Your task to perform on an android device: change timer sound Image 0: 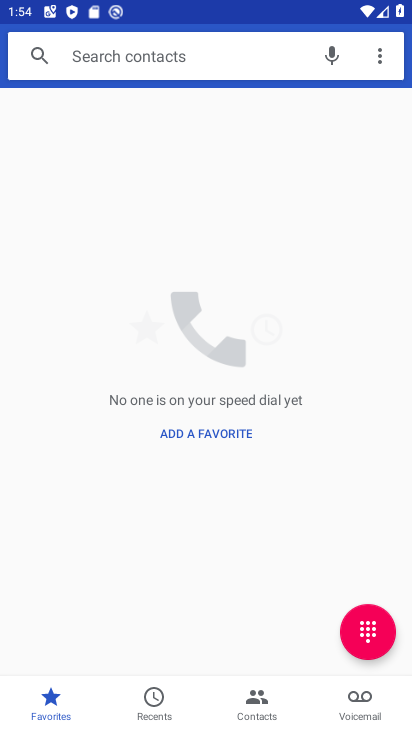
Step 0: press home button
Your task to perform on an android device: change timer sound Image 1: 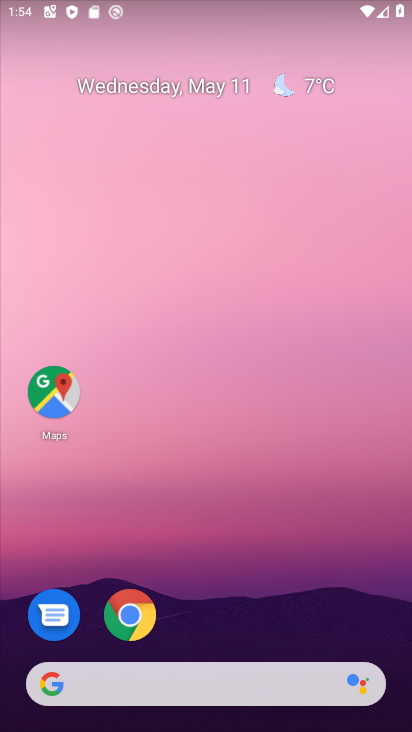
Step 1: drag from (331, 592) to (282, 119)
Your task to perform on an android device: change timer sound Image 2: 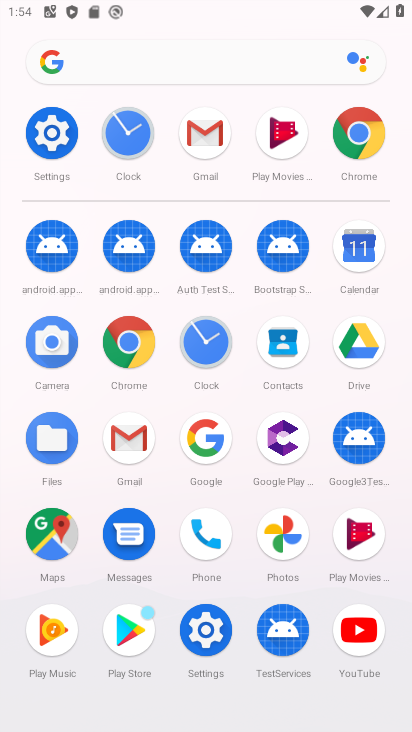
Step 2: click (213, 335)
Your task to perform on an android device: change timer sound Image 3: 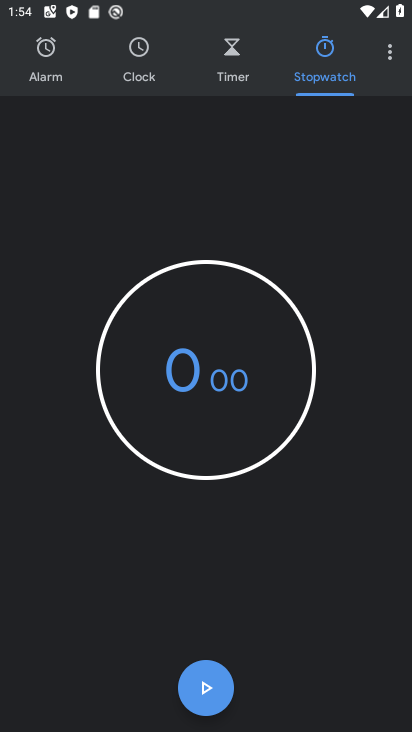
Step 3: drag from (390, 60) to (272, 101)
Your task to perform on an android device: change timer sound Image 4: 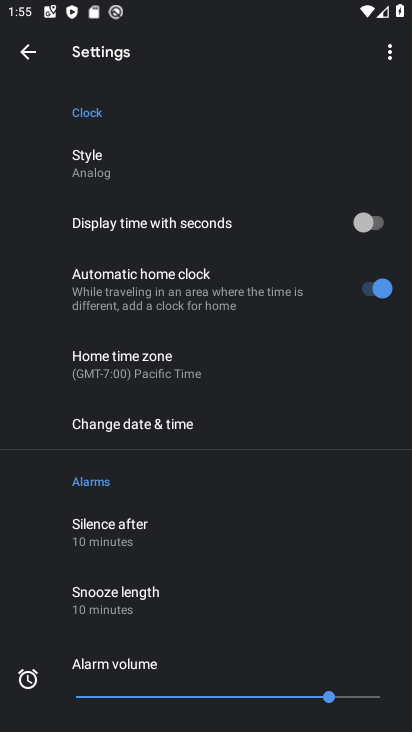
Step 4: drag from (218, 630) to (365, 122)
Your task to perform on an android device: change timer sound Image 5: 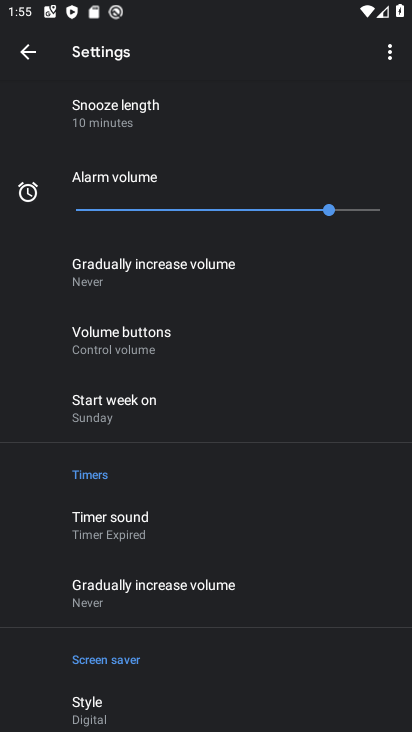
Step 5: click (118, 522)
Your task to perform on an android device: change timer sound Image 6: 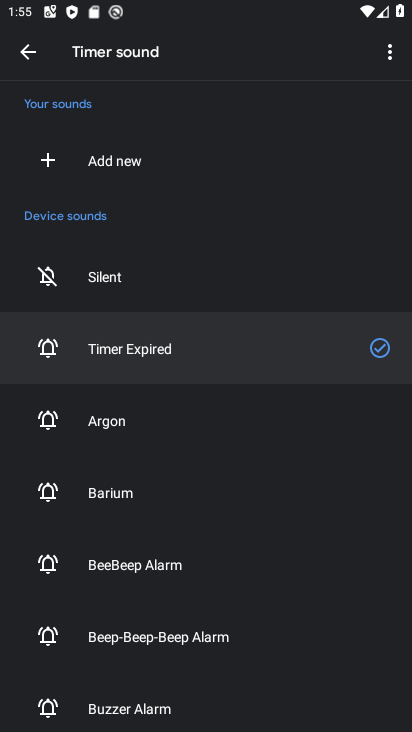
Step 6: click (174, 415)
Your task to perform on an android device: change timer sound Image 7: 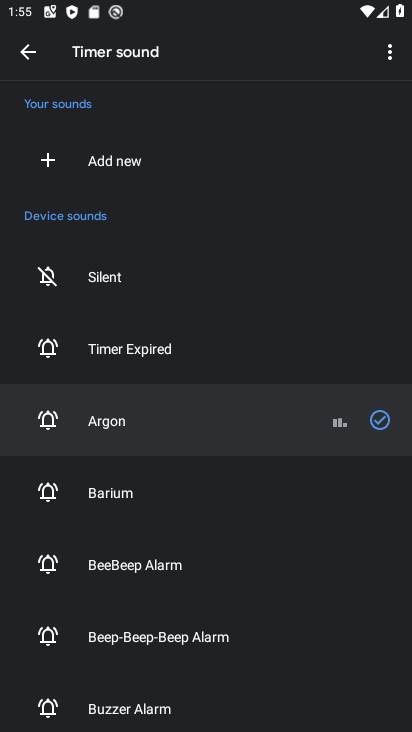
Step 7: task complete